Your task to perform on an android device: Open CNN.com Image 0: 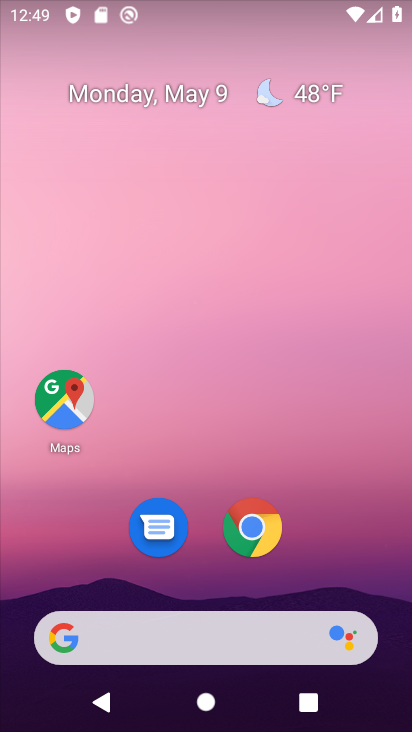
Step 0: click (209, 623)
Your task to perform on an android device: Open CNN.com Image 1: 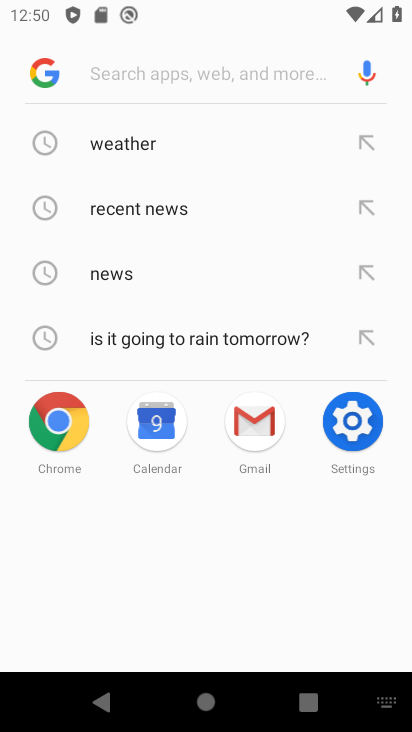
Step 1: type "CNN.com"
Your task to perform on an android device: Open CNN.com Image 2: 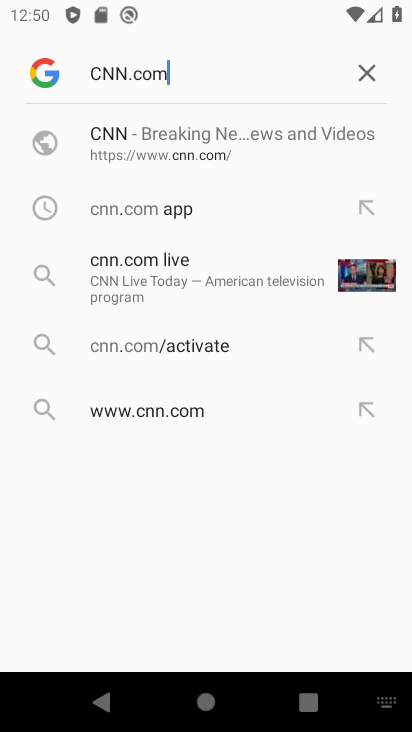
Step 2: click (188, 403)
Your task to perform on an android device: Open CNN.com Image 3: 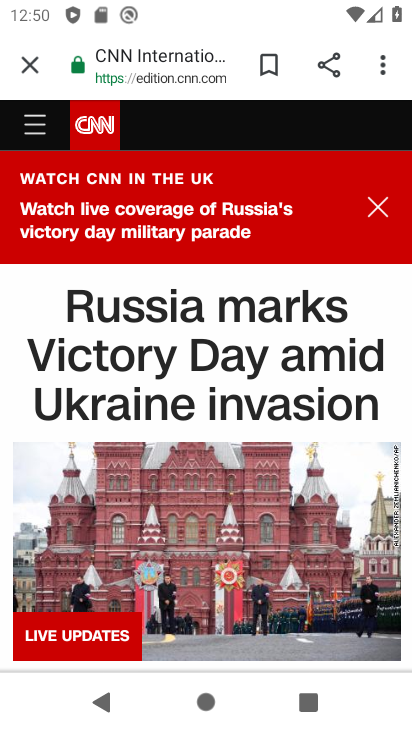
Step 3: task complete